Your task to perform on an android device: Go to accessibility settings Image 0: 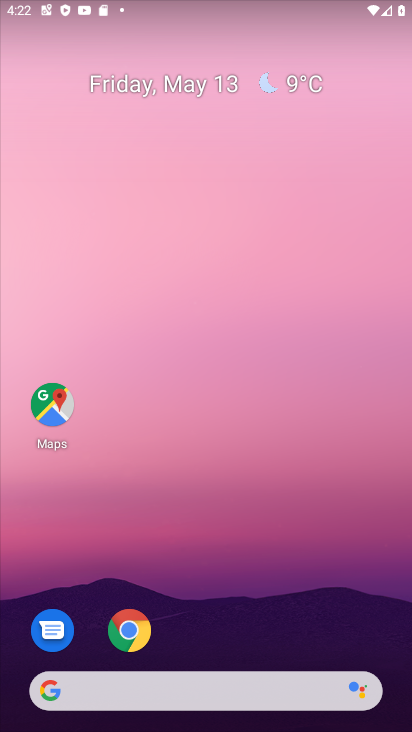
Step 0: drag from (267, 498) to (222, 15)
Your task to perform on an android device: Go to accessibility settings Image 1: 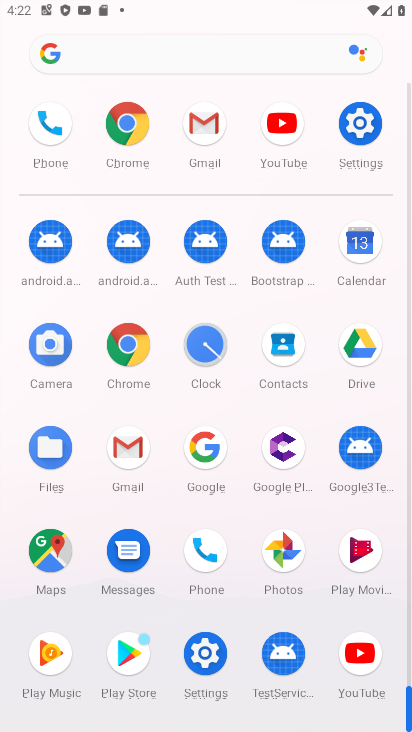
Step 1: drag from (20, 524) to (28, 234)
Your task to perform on an android device: Go to accessibility settings Image 2: 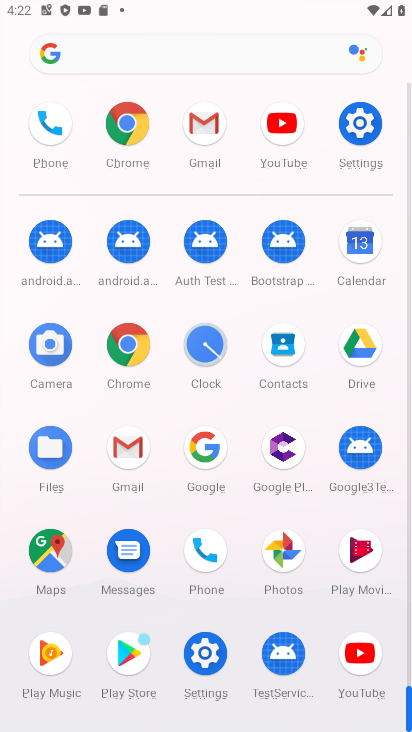
Step 2: click (204, 653)
Your task to perform on an android device: Go to accessibility settings Image 3: 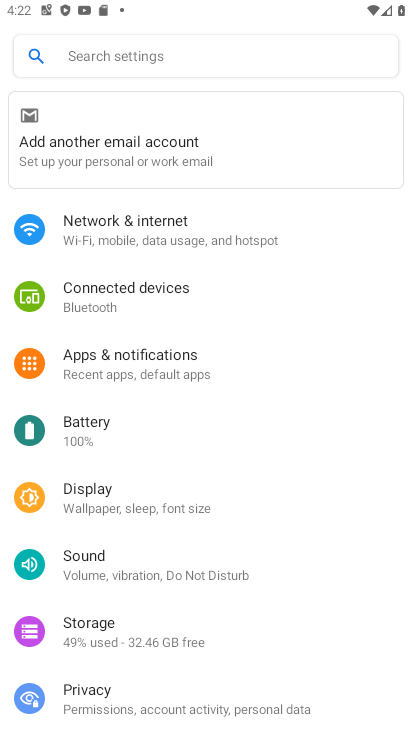
Step 3: drag from (263, 484) to (269, 222)
Your task to perform on an android device: Go to accessibility settings Image 4: 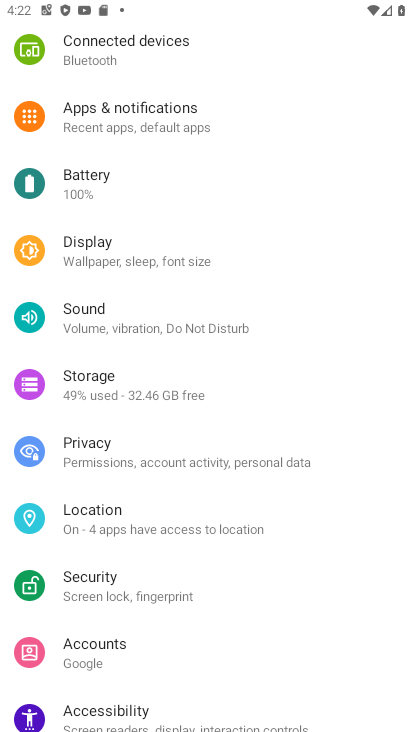
Step 4: drag from (257, 539) to (269, 133)
Your task to perform on an android device: Go to accessibility settings Image 5: 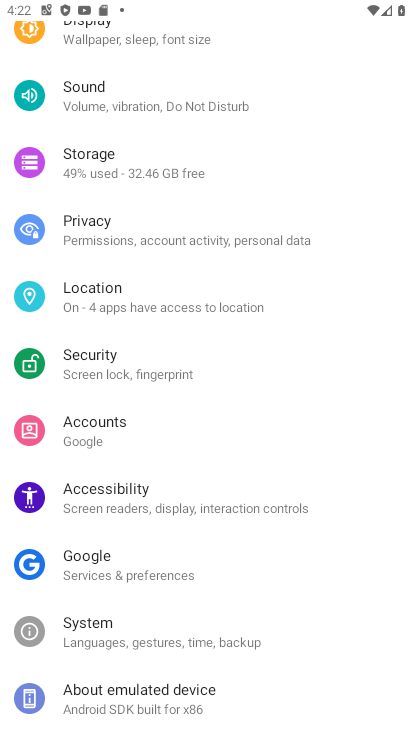
Step 5: click (137, 493)
Your task to perform on an android device: Go to accessibility settings Image 6: 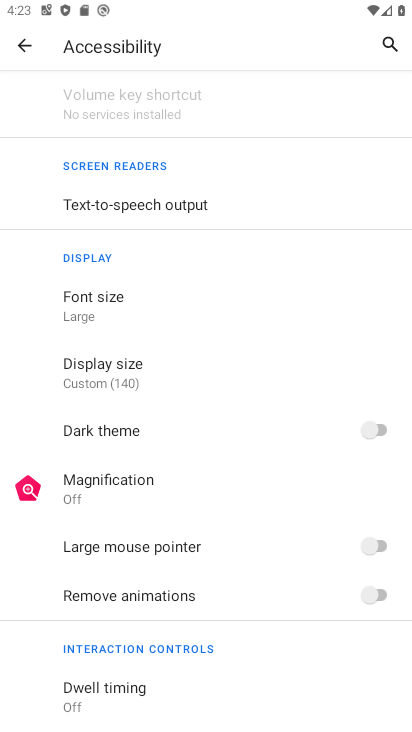
Step 6: task complete